Your task to perform on an android device: Open calendar and show me the third week of next month Image 0: 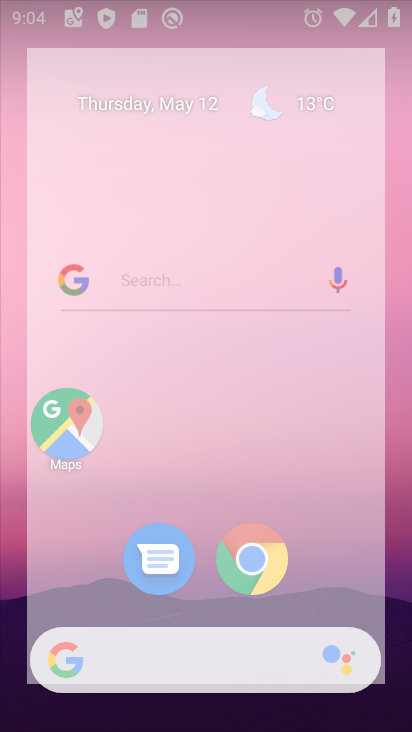
Step 0: drag from (113, 620) to (191, 100)
Your task to perform on an android device: Open calendar and show me the third week of next month Image 1: 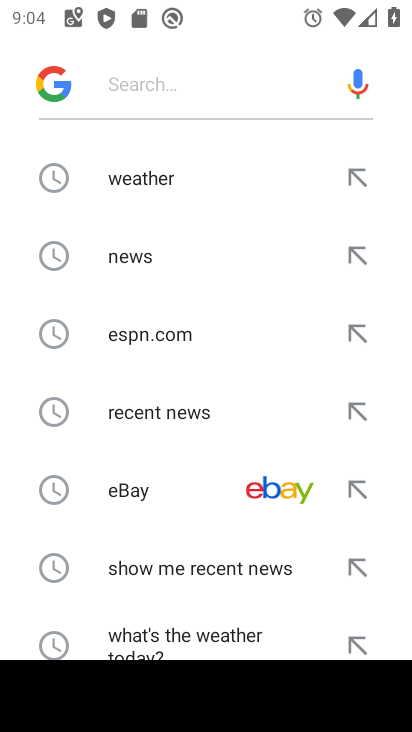
Step 1: press back button
Your task to perform on an android device: Open calendar and show me the third week of next month Image 2: 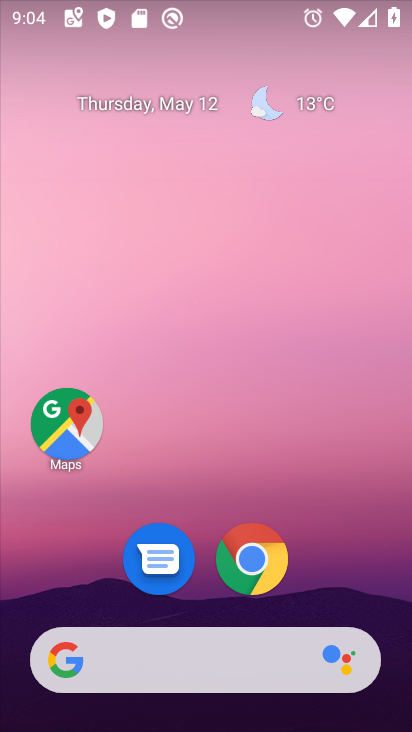
Step 2: drag from (225, 617) to (276, 87)
Your task to perform on an android device: Open calendar and show me the third week of next month Image 3: 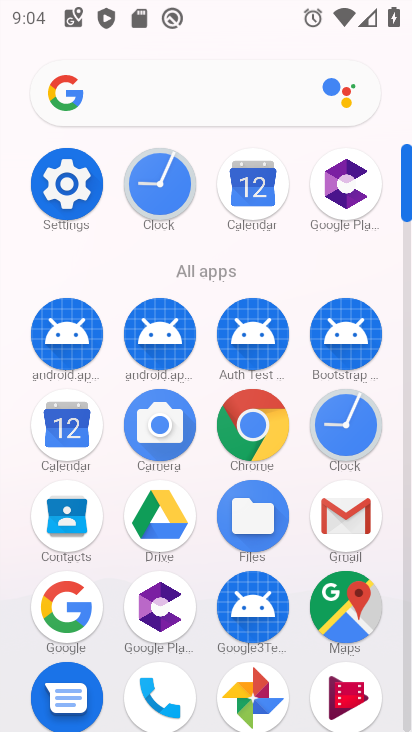
Step 3: click (57, 431)
Your task to perform on an android device: Open calendar and show me the third week of next month Image 4: 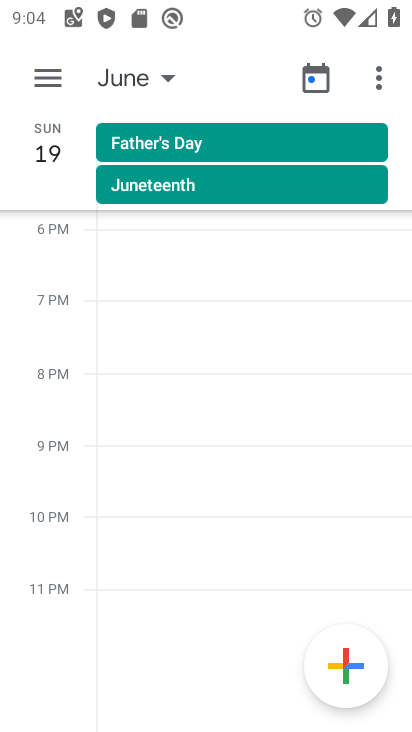
Step 4: click (46, 87)
Your task to perform on an android device: Open calendar and show me the third week of next month Image 5: 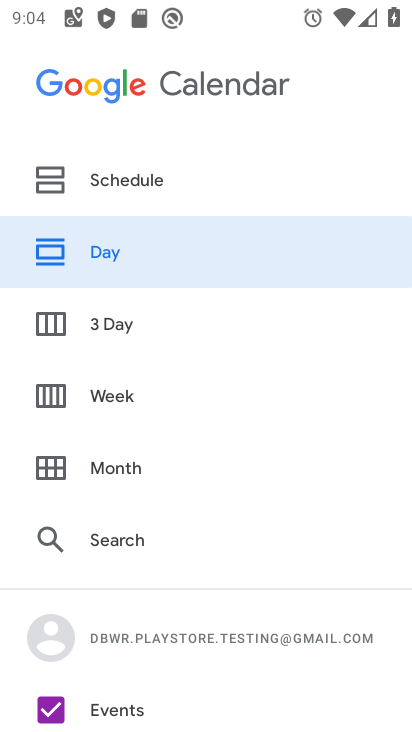
Step 5: click (113, 403)
Your task to perform on an android device: Open calendar and show me the third week of next month Image 6: 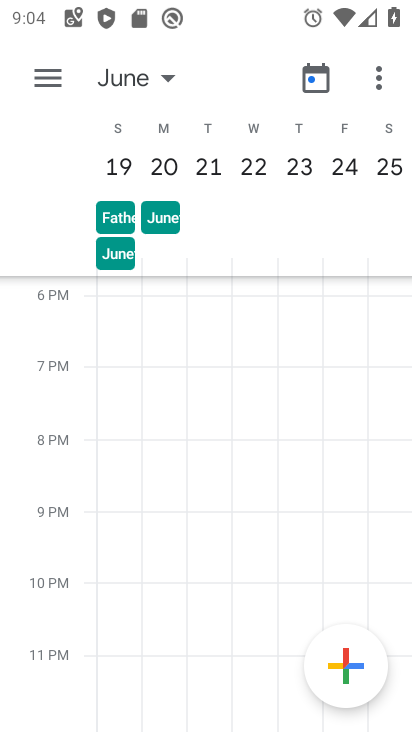
Step 6: click (125, 80)
Your task to perform on an android device: Open calendar and show me the third week of next month Image 7: 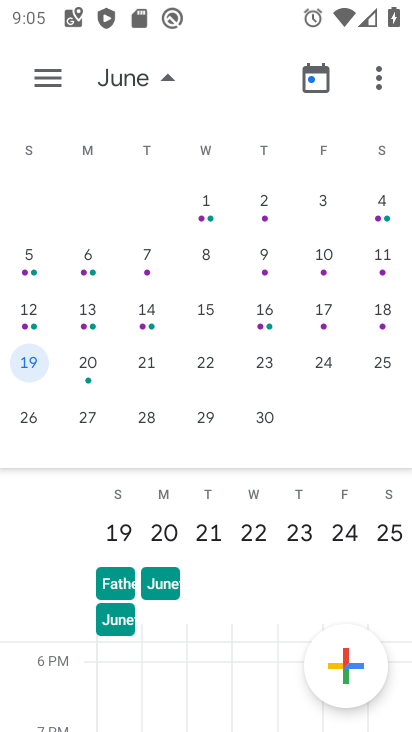
Step 7: task complete